Your task to perform on an android device: Go to Google Image 0: 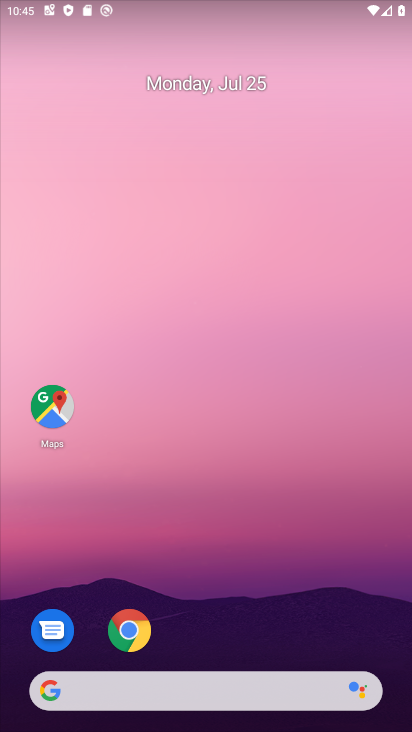
Step 0: press home button
Your task to perform on an android device: Go to Google Image 1: 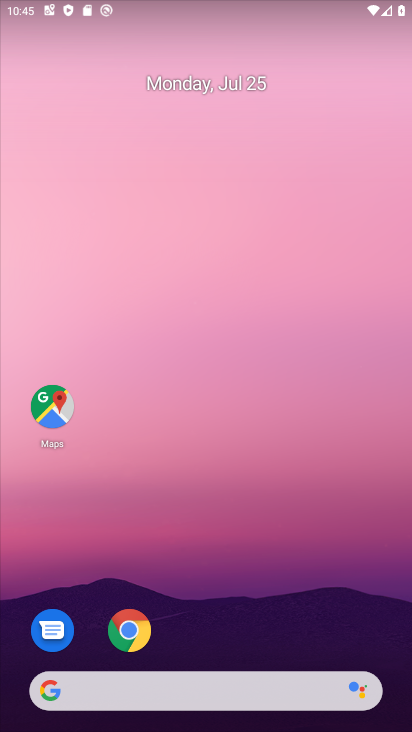
Step 1: drag from (349, 601) to (362, 95)
Your task to perform on an android device: Go to Google Image 2: 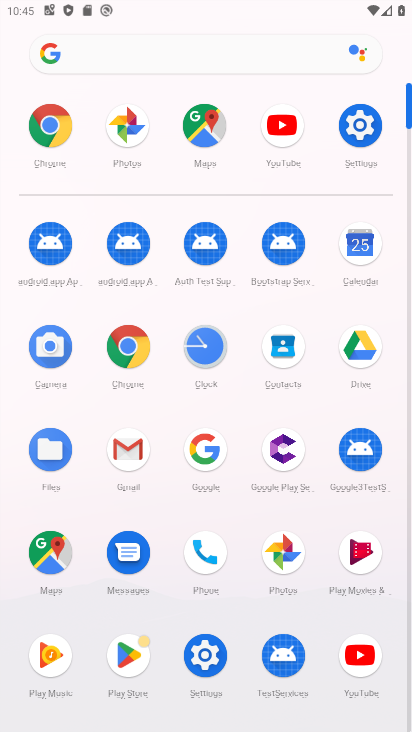
Step 2: click (204, 459)
Your task to perform on an android device: Go to Google Image 3: 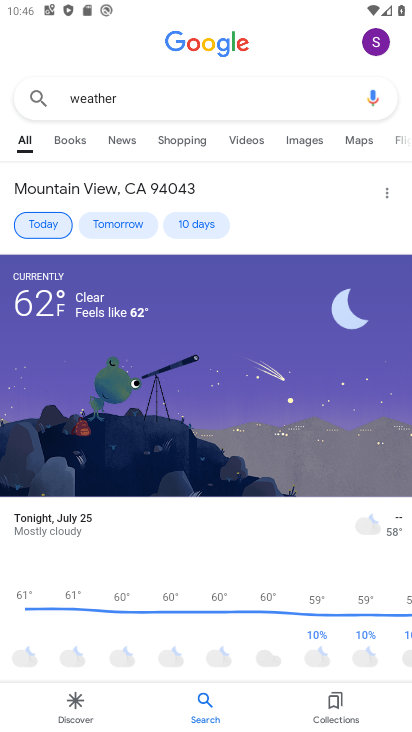
Step 3: task complete